Your task to perform on an android device: turn pop-ups off in chrome Image 0: 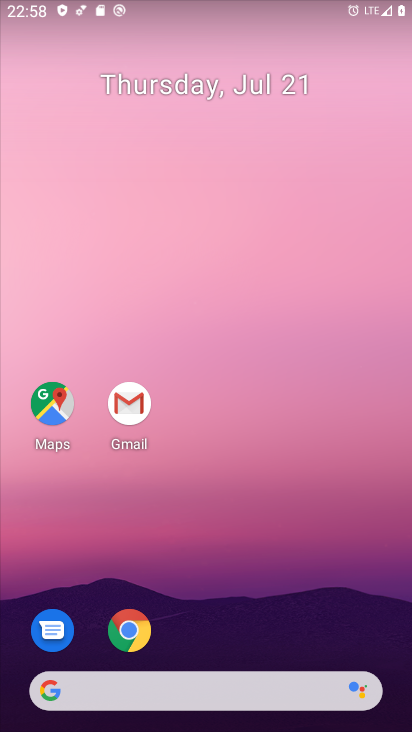
Step 0: drag from (215, 599) to (205, 291)
Your task to perform on an android device: turn pop-ups off in chrome Image 1: 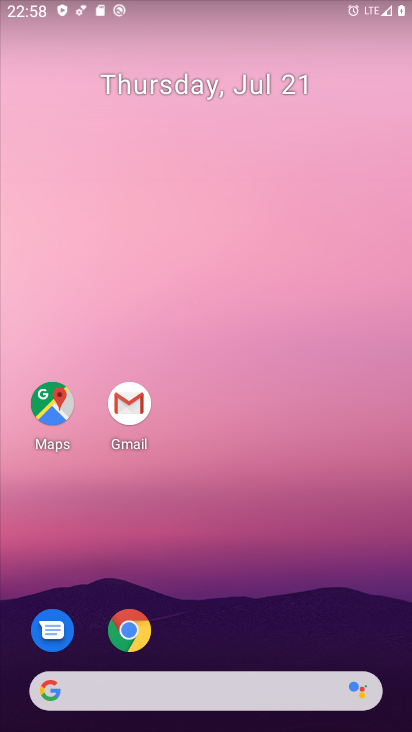
Step 1: drag from (228, 505) to (197, 97)
Your task to perform on an android device: turn pop-ups off in chrome Image 2: 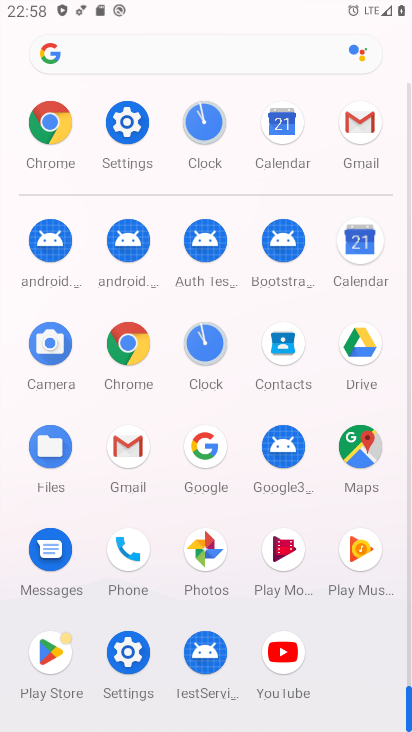
Step 2: click (115, 341)
Your task to perform on an android device: turn pop-ups off in chrome Image 3: 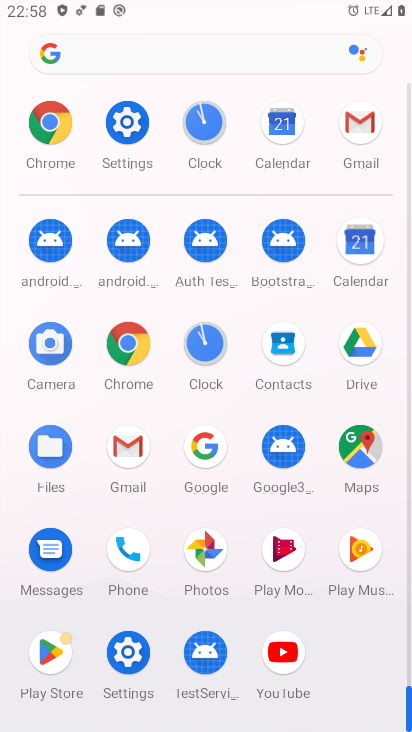
Step 3: click (117, 343)
Your task to perform on an android device: turn pop-ups off in chrome Image 4: 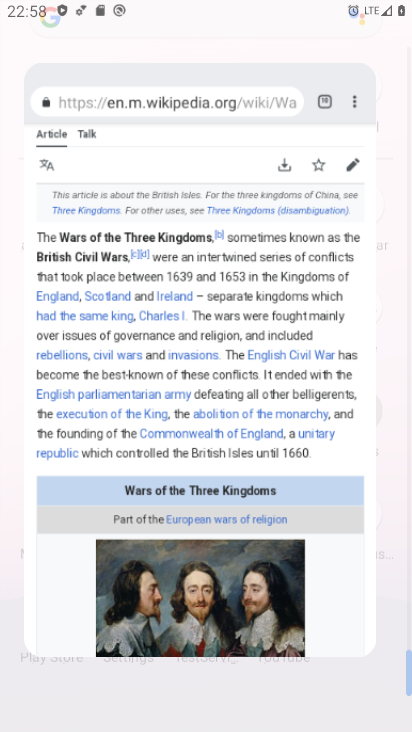
Step 4: click (120, 350)
Your task to perform on an android device: turn pop-ups off in chrome Image 5: 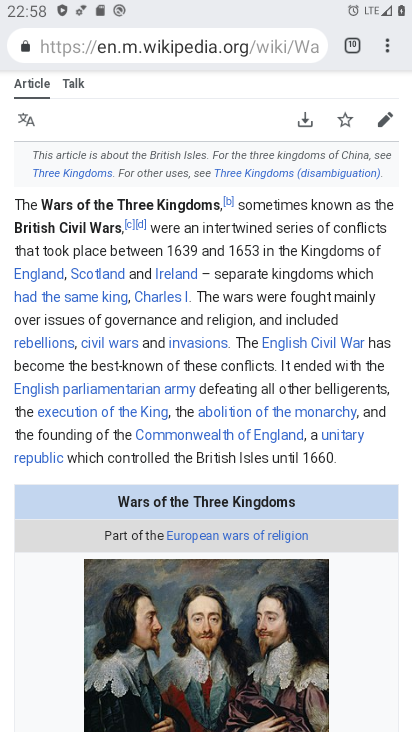
Step 5: drag from (383, 48) to (206, 540)
Your task to perform on an android device: turn pop-ups off in chrome Image 6: 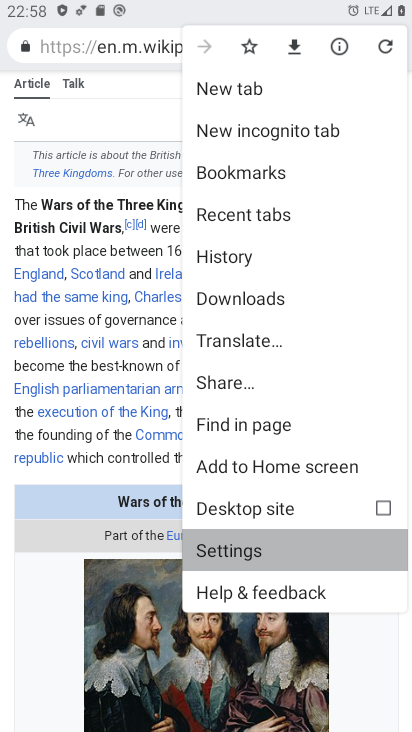
Step 6: click (212, 541)
Your task to perform on an android device: turn pop-ups off in chrome Image 7: 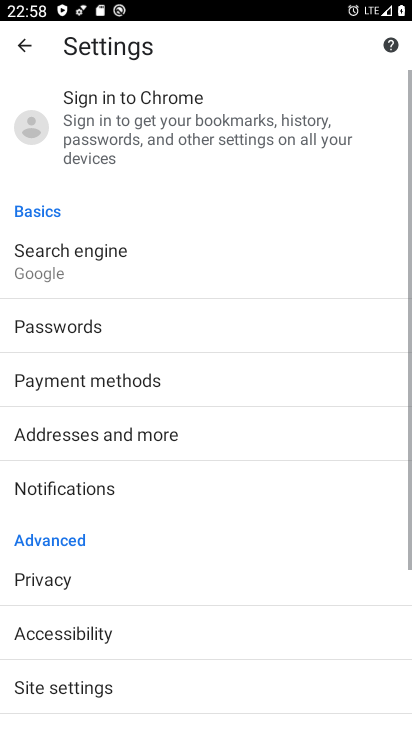
Step 7: drag from (124, 546) to (124, 135)
Your task to perform on an android device: turn pop-ups off in chrome Image 8: 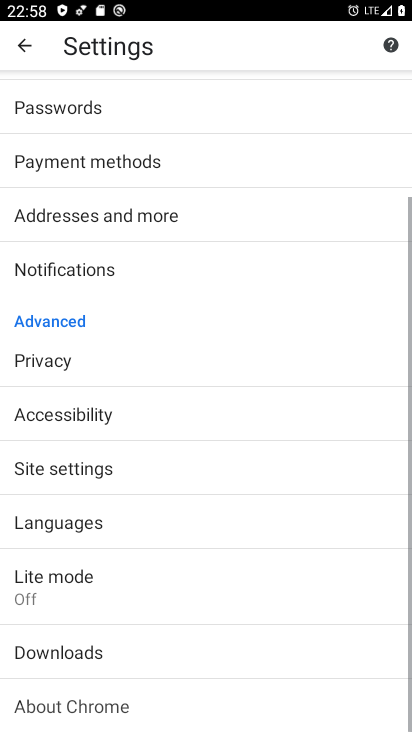
Step 8: drag from (90, 513) to (90, 179)
Your task to perform on an android device: turn pop-ups off in chrome Image 9: 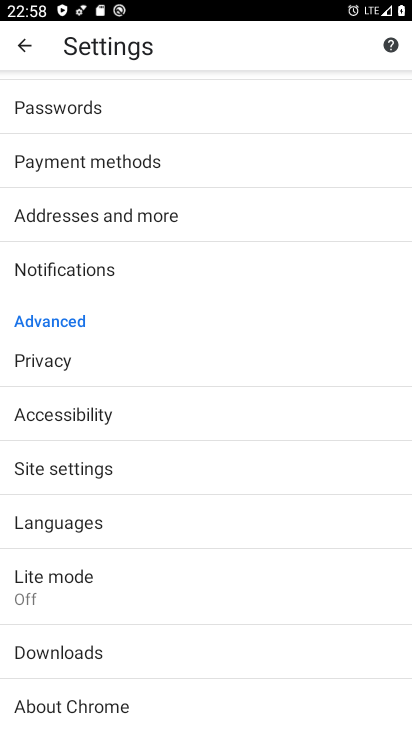
Step 9: click (45, 461)
Your task to perform on an android device: turn pop-ups off in chrome Image 10: 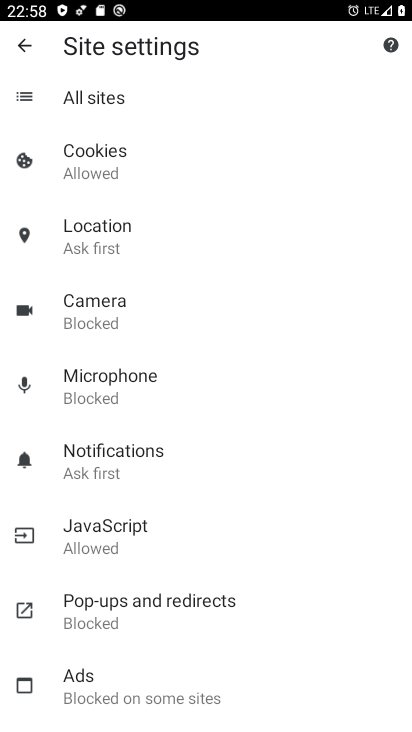
Step 10: click (102, 609)
Your task to perform on an android device: turn pop-ups off in chrome Image 11: 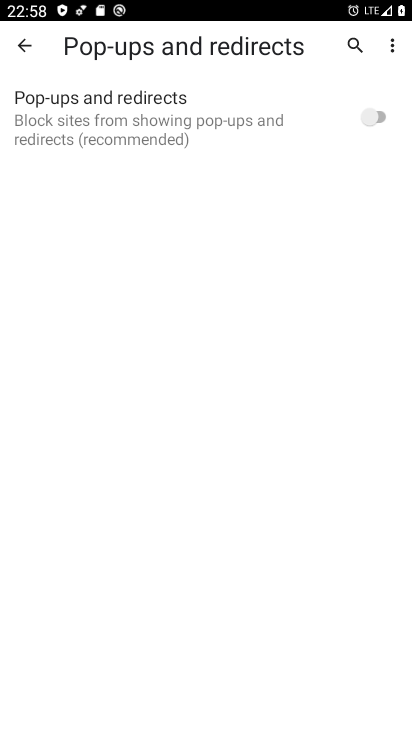
Step 11: task complete